Your task to perform on an android device: make emails show in primary in the gmail app Image 0: 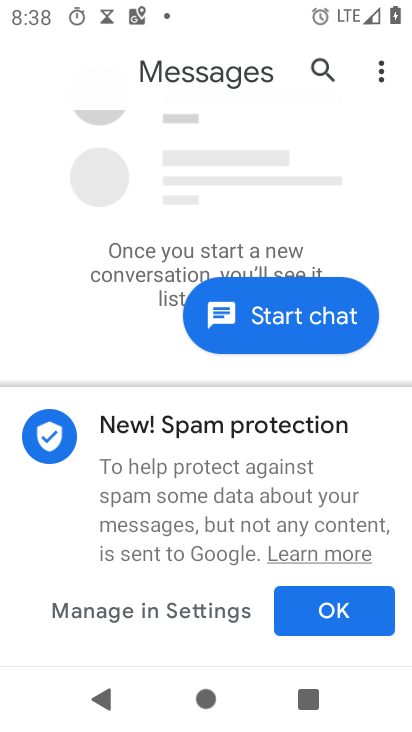
Step 0: press home button
Your task to perform on an android device: make emails show in primary in the gmail app Image 1: 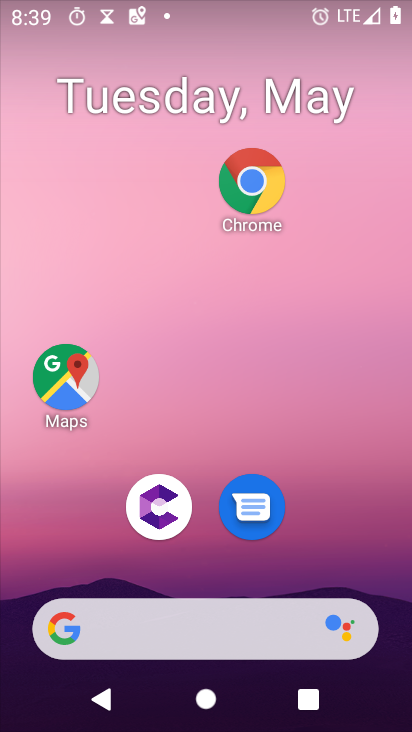
Step 1: drag from (322, 578) to (310, 131)
Your task to perform on an android device: make emails show in primary in the gmail app Image 2: 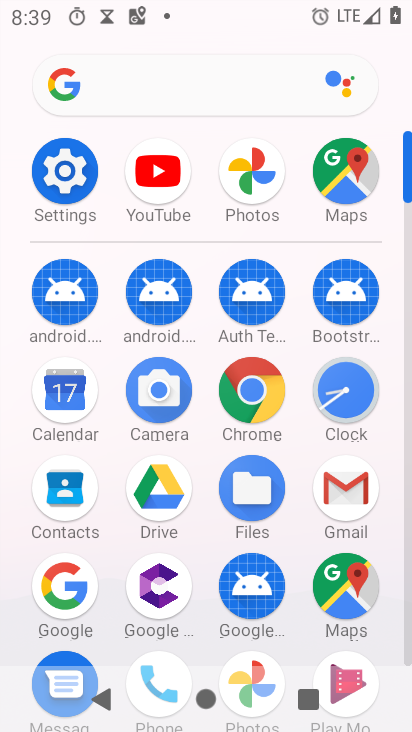
Step 2: click (331, 513)
Your task to perform on an android device: make emails show in primary in the gmail app Image 3: 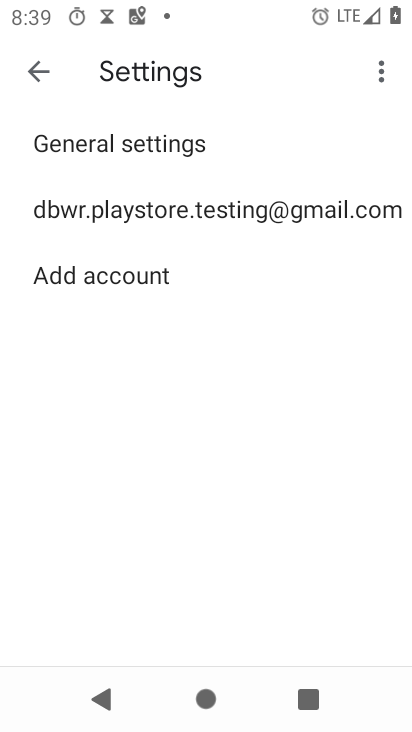
Step 3: click (92, 224)
Your task to perform on an android device: make emails show in primary in the gmail app Image 4: 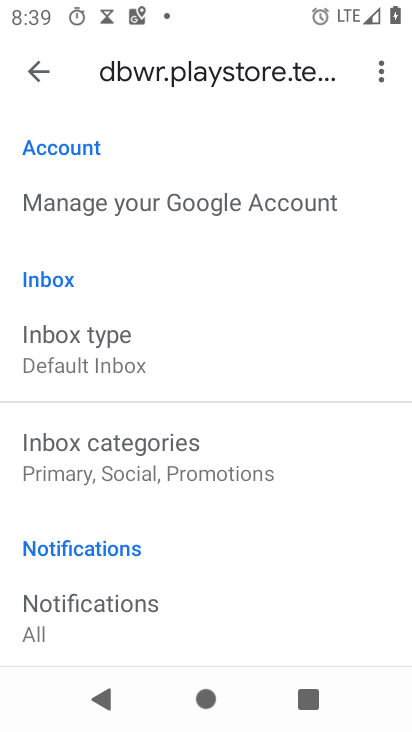
Step 4: click (62, 369)
Your task to perform on an android device: make emails show in primary in the gmail app Image 5: 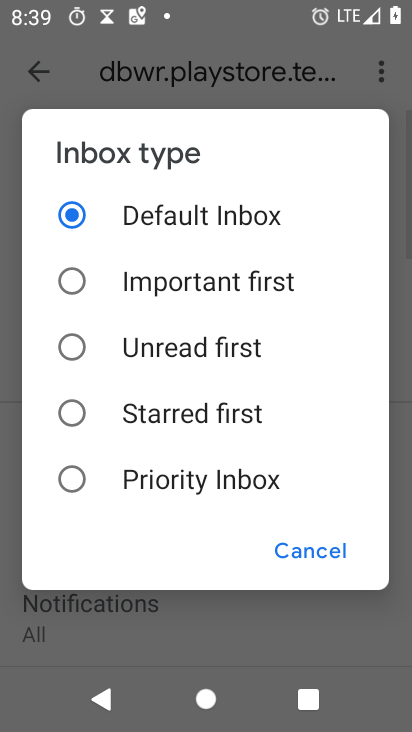
Step 5: click (165, 211)
Your task to perform on an android device: make emails show in primary in the gmail app Image 6: 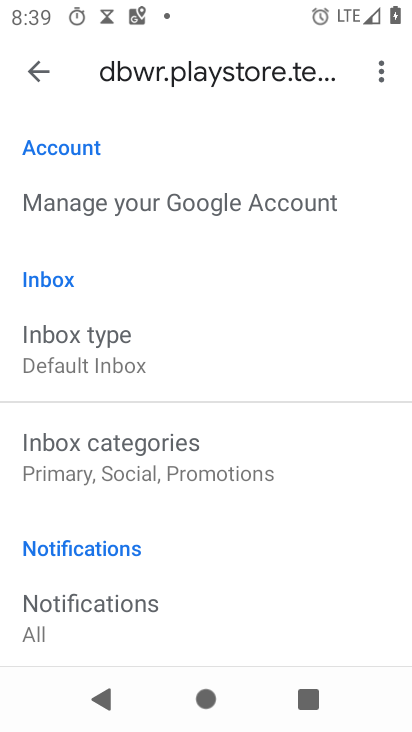
Step 6: task complete